Your task to perform on an android device: toggle sleep mode Image 0: 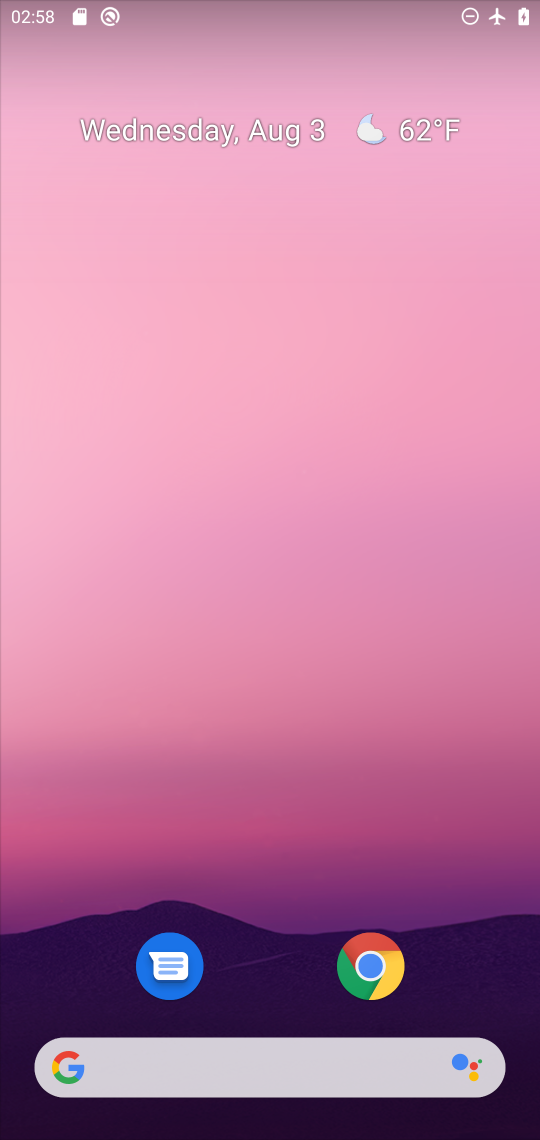
Step 0: drag from (279, 967) to (314, 77)
Your task to perform on an android device: toggle sleep mode Image 1: 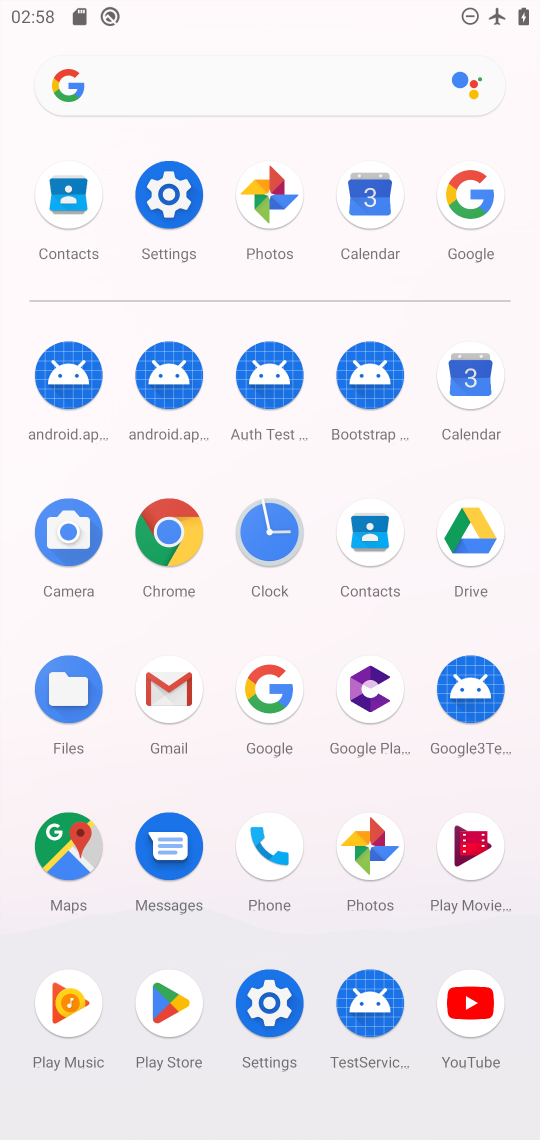
Step 1: click (171, 192)
Your task to perform on an android device: toggle sleep mode Image 2: 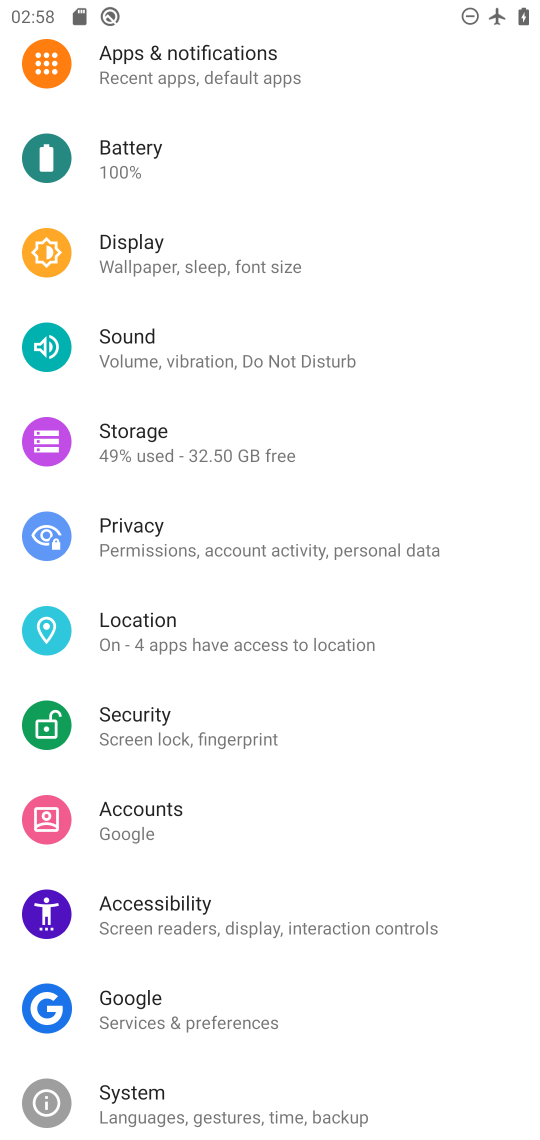
Step 2: click (205, 275)
Your task to perform on an android device: toggle sleep mode Image 3: 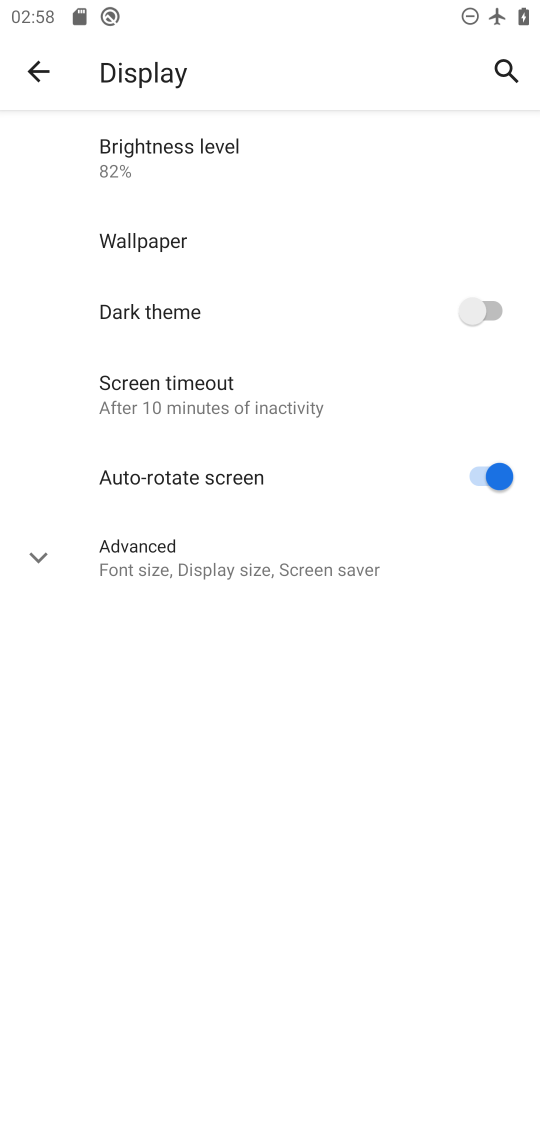
Step 3: click (204, 397)
Your task to perform on an android device: toggle sleep mode Image 4: 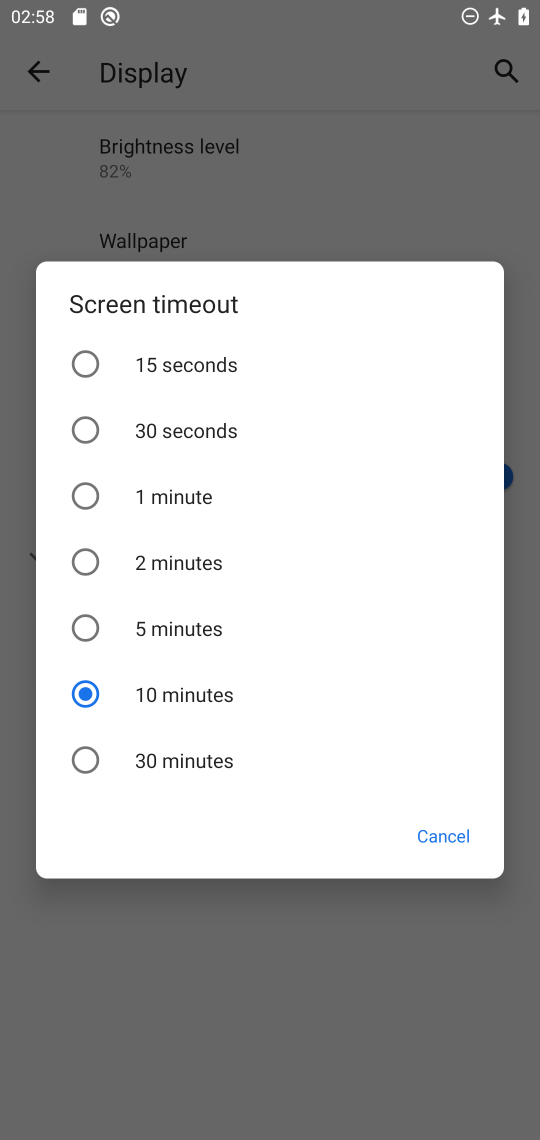
Step 4: click (191, 435)
Your task to perform on an android device: toggle sleep mode Image 5: 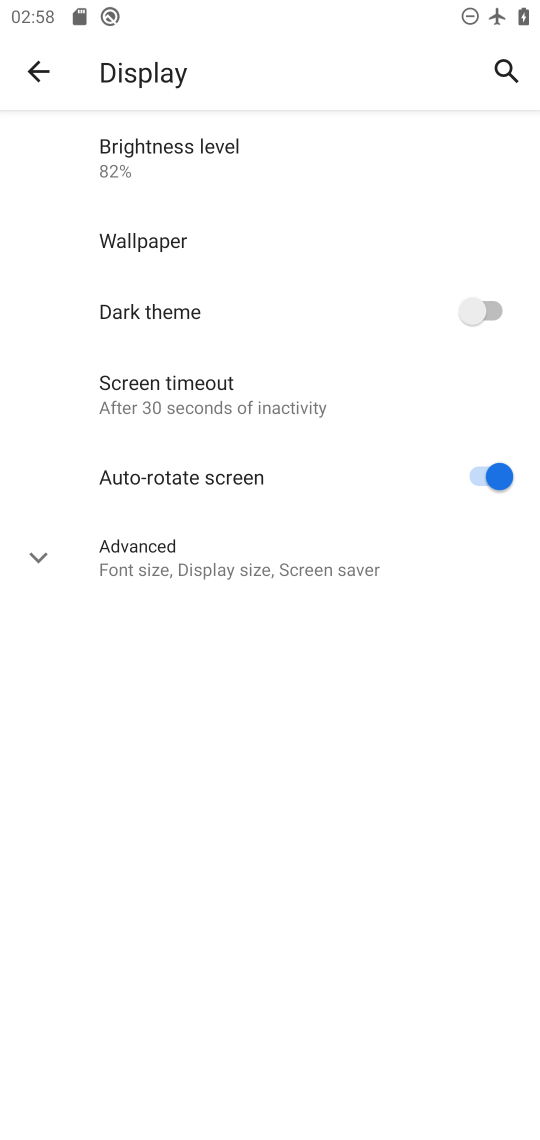
Step 5: task complete